Your task to perform on an android device: Show me popular videos on Youtube Image 0: 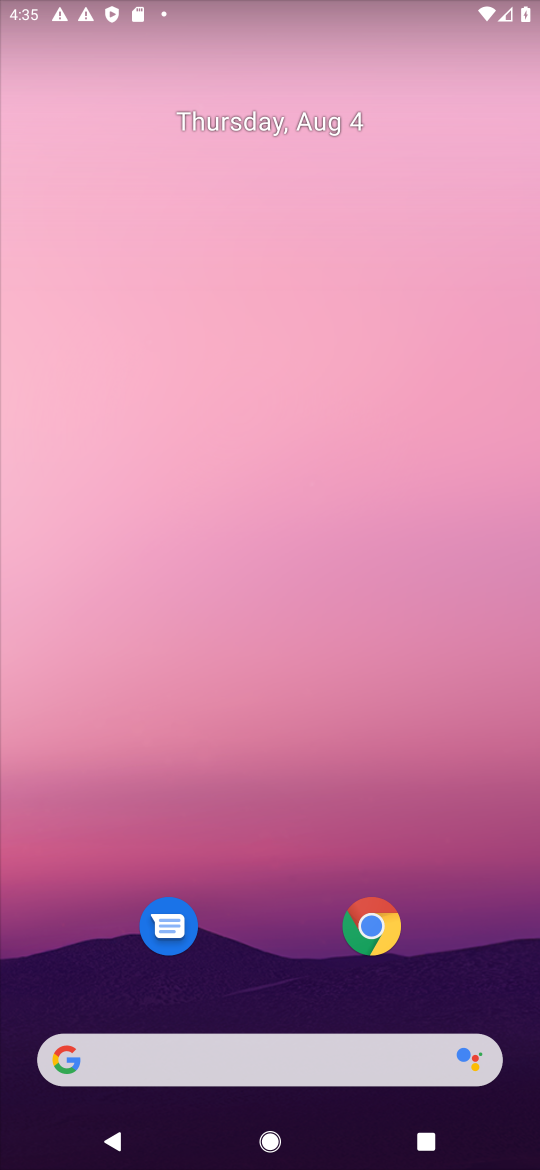
Step 0: press home button
Your task to perform on an android device: Show me popular videos on Youtube Image 1: 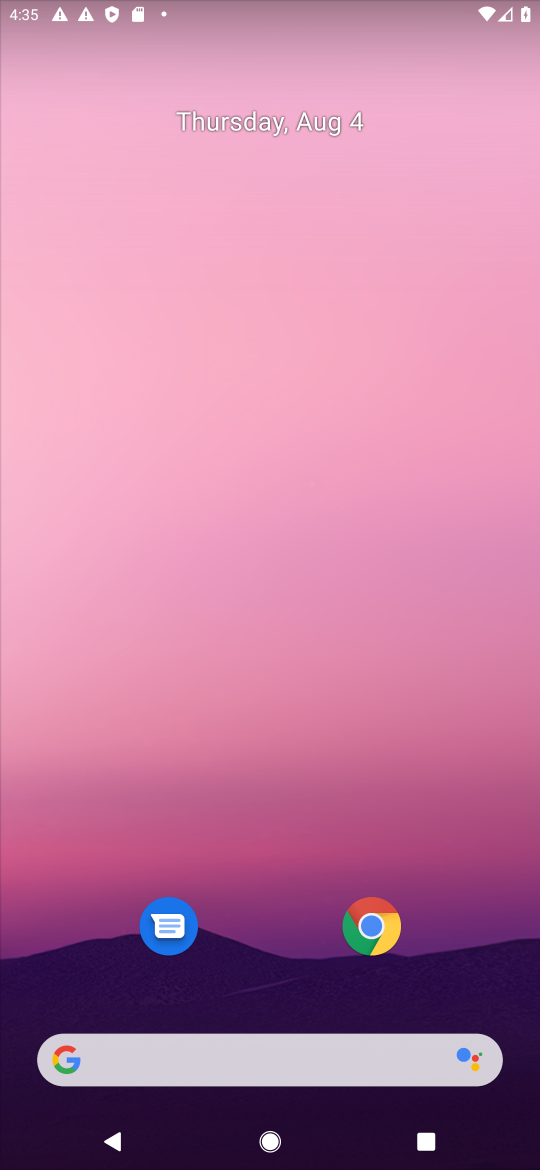
Step 1: drag from (297, 1006) to (257, 371)
Your task to perform on an android device: Show me popular videos on Youtube Image 2: 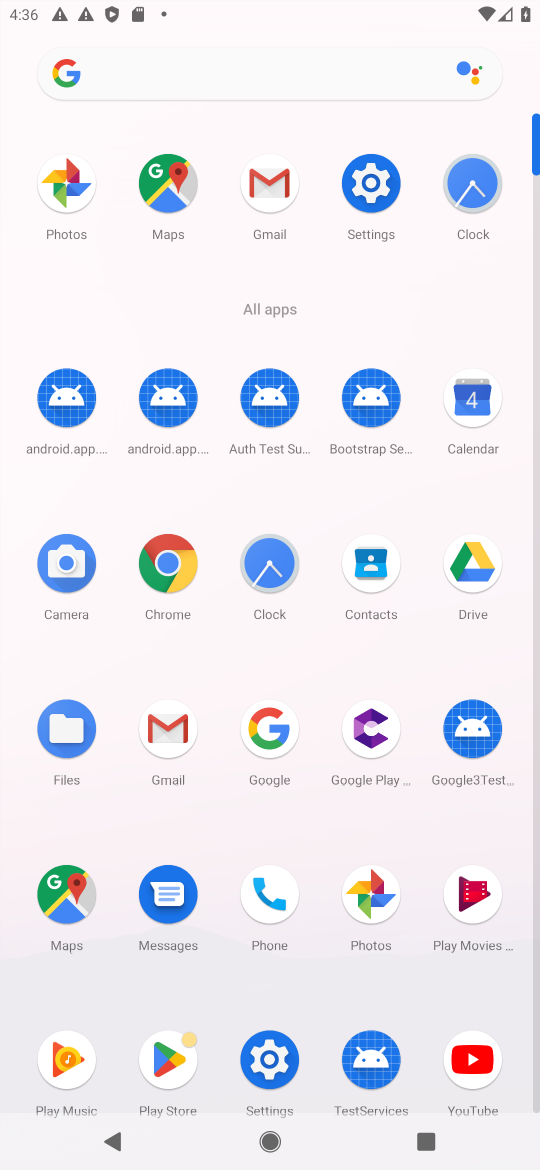
Step 2: click (485, 1057)
Your task to perform on an android device: Show me popular videos on Youtube Image 3: 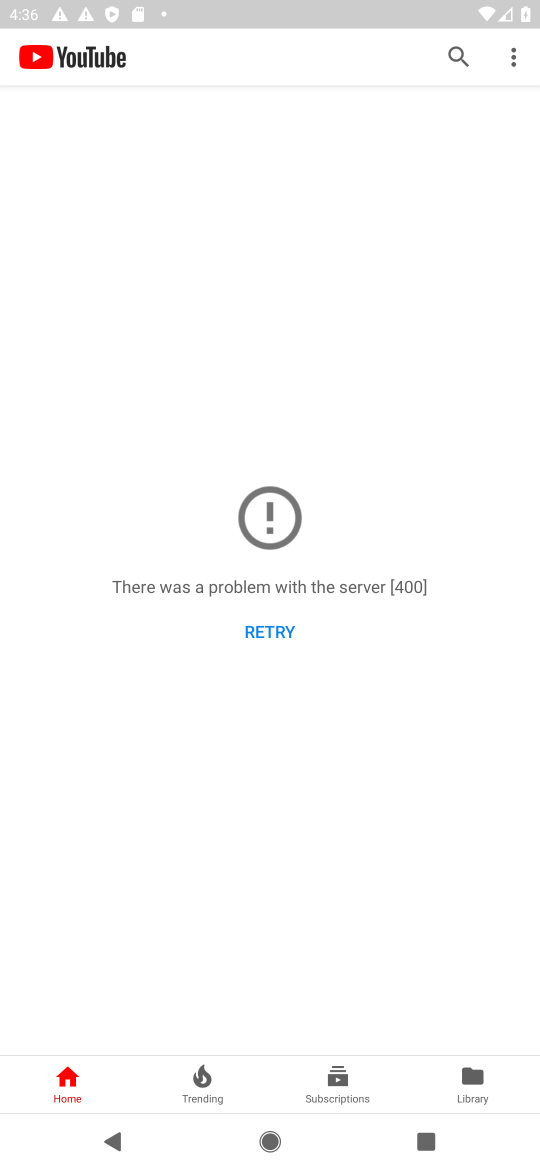
Step 3: click (272, 633)
Your task to perform on an android device: Show me popular videos on Youtube Image 4: 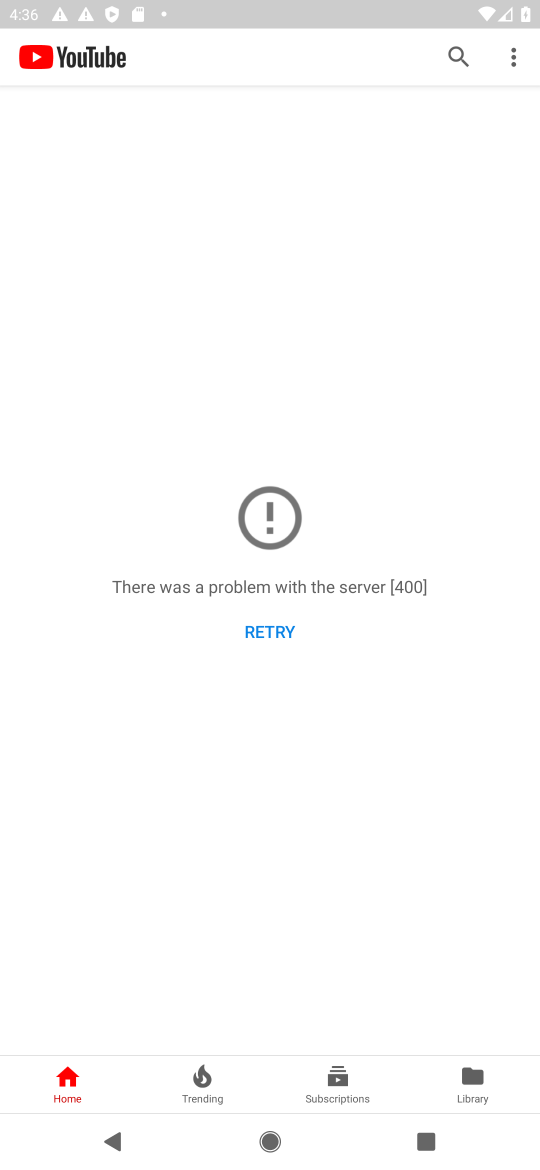
Step 4: click (272, 633)
Your task to perform on an android device: Show me popular videos on Youtube Image 5: 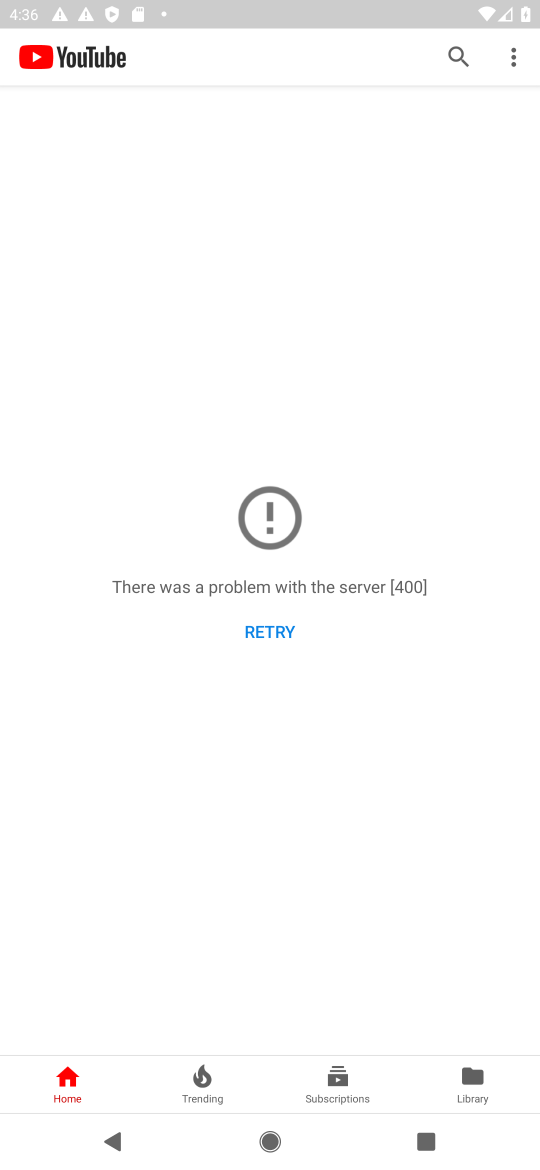
Step 5: task complete